Your task to perform on an android device: change notifications settings Image 0: 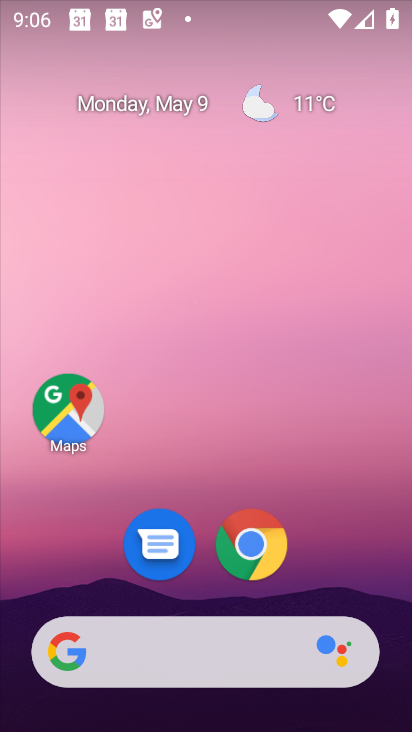
Step 0: drag from (392, 666) to (360, 251)
Your task to perform on an android device: change notifications settings Image 1: 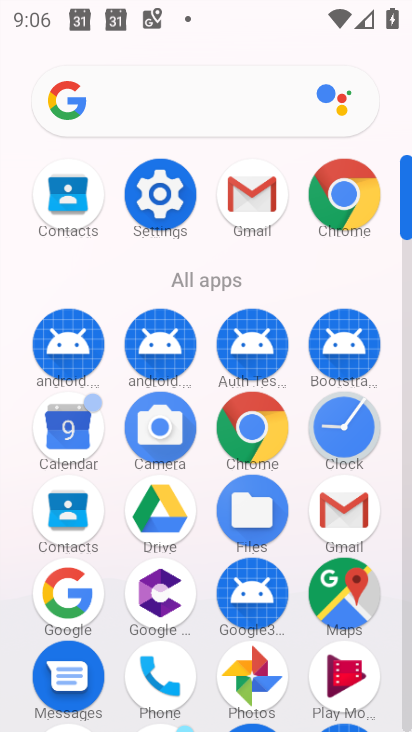
Step 1: click (158, 202)
Your task to perform on an android device: change notifications settings Image 2: 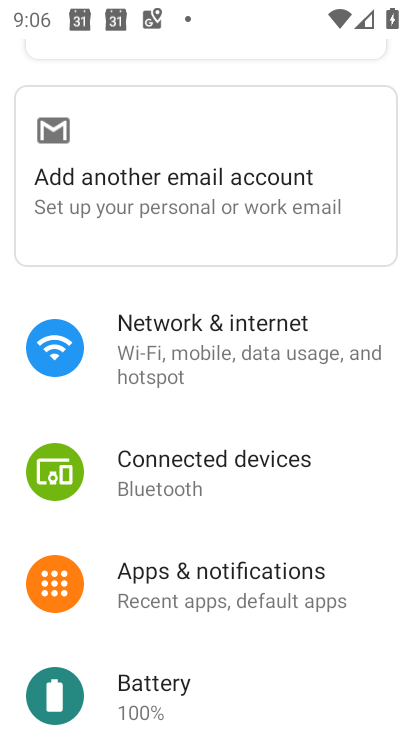
Step 2: click (214, 578)
Your task to perform on an android device: change notifications settings Image 3: 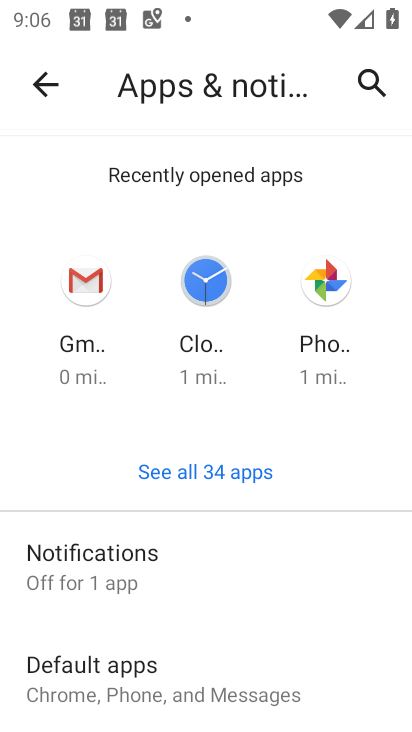
Step 3: click (74, 570)
Your task to perform on an android device: change notifications settings Image 4: 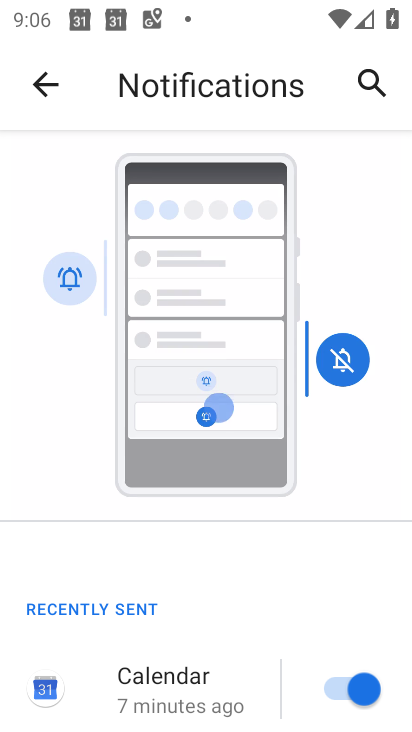
Step 4: drag from (262, 651) to (270, 282)
Your task to perform on an android device: change notifications settings Image 5: 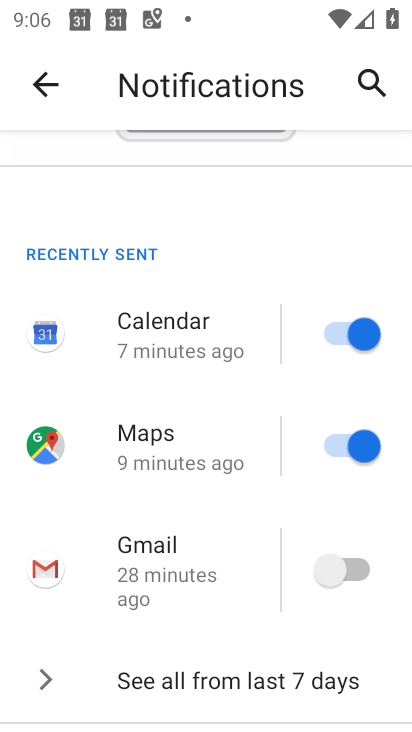
Step 5: click (341, 320)
Your task to perform on an android device: change notifications settings Image 6: 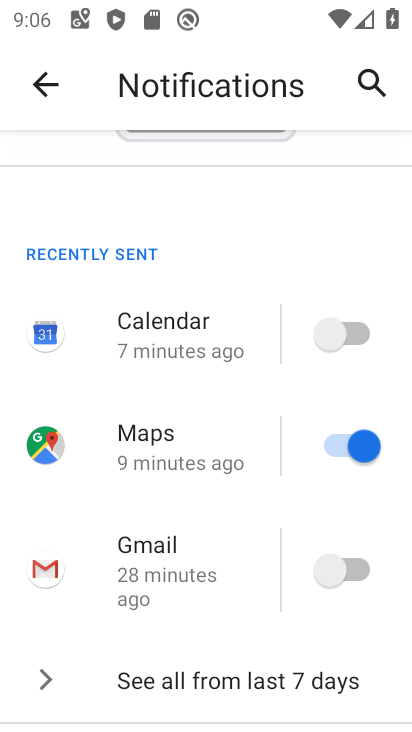
Step 6: click (335, 443)
Your task to perform on an android device: change notifications settings Image 7: 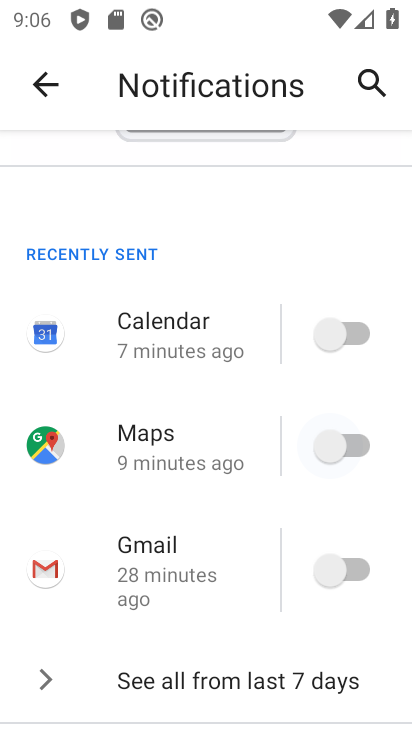
Step 7: click (356, 571)
Your task to perform on an android device: change notifications settings Image 8: 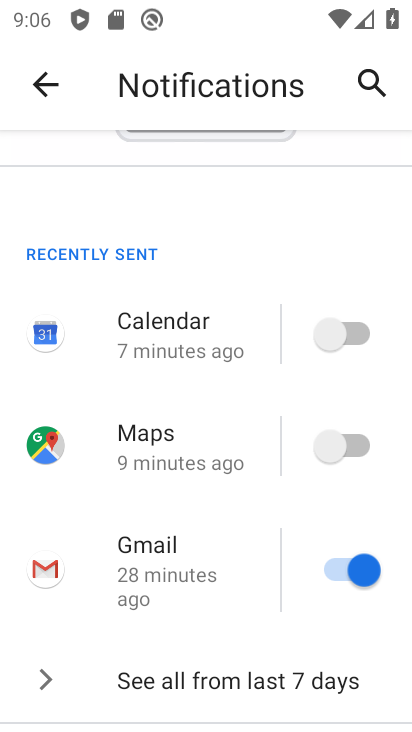
Step 8: task complete